Your task to perform on an android device: Go to CNN.com Image 0: 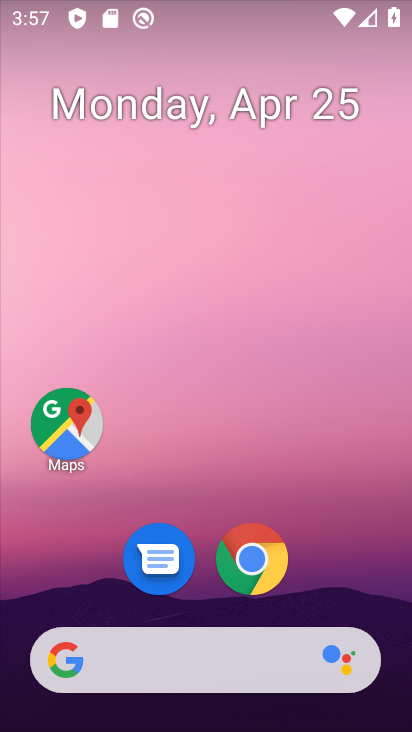
Step 0: click (254, 559)
Your task to perform on an android device: Go to CNN.com Image 1: 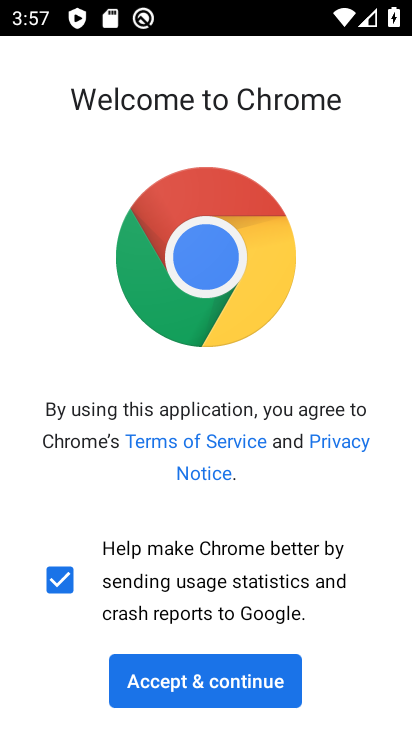
Step 1: click (227, 673)
Your task to perform on an android device: Go to CNN.com Image 2: 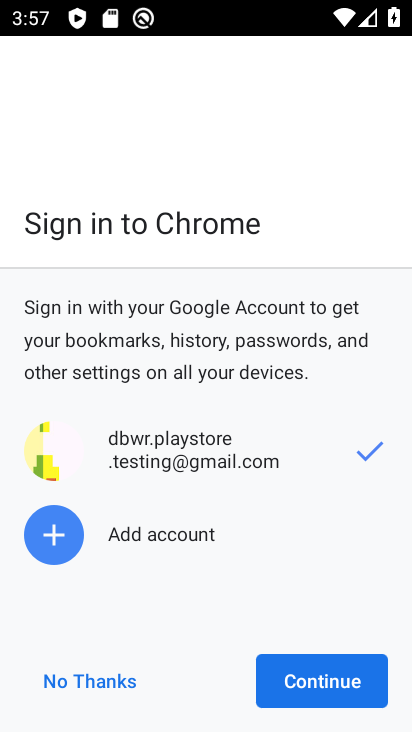
Step 2: click (315, 684)
Your task to perform on an android device: Go to CNN.com Image 3: 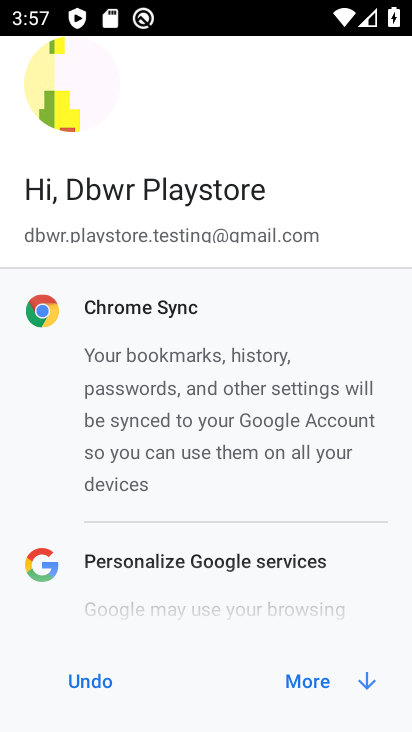
Step 3: click (315, 684)
Your task to perform on an android device: Go to CNN.com Image 4: 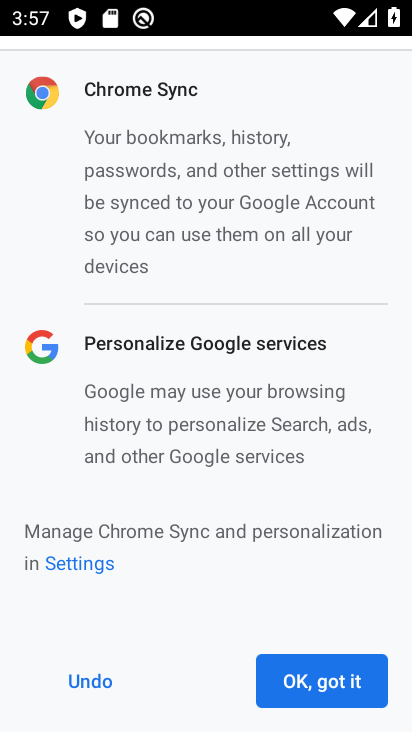
Step 4: click (315, 684)
Your task to perform on an android device: Go to CNN.com Image 5: 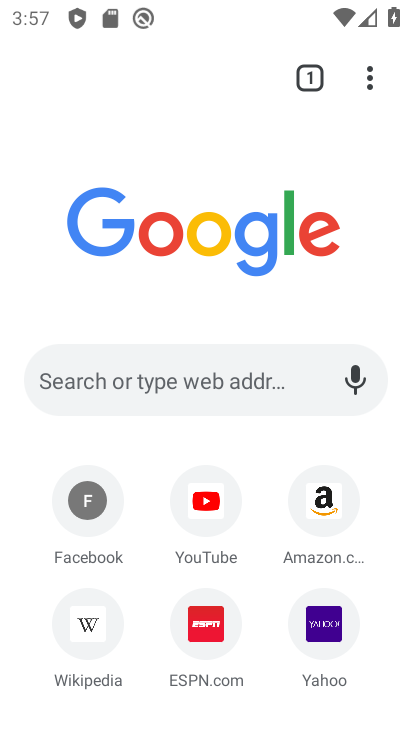
Step 5: click (206, 386)
Your task to perform on an android device: Go to CNN.com Image 6: 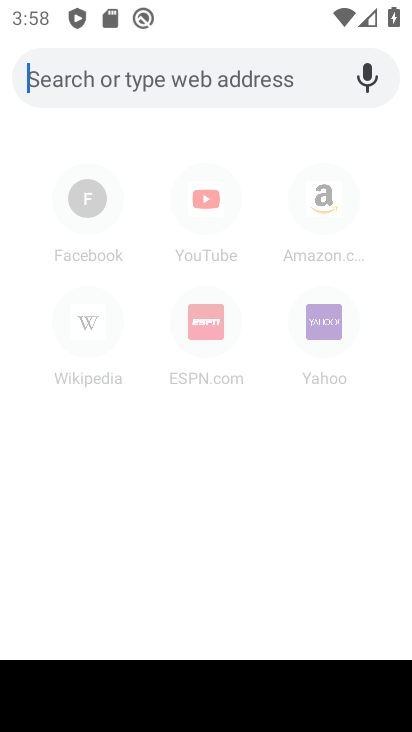
Step 6: type "CNN.com"
Your task to perform on an android device: Go to CNN.com Image 7: 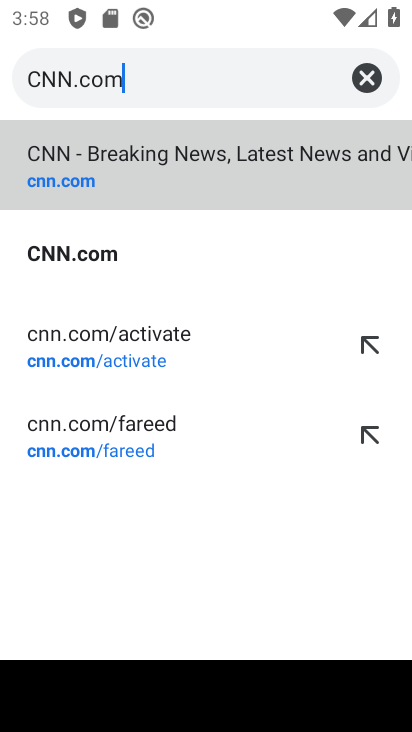
Step 7: click (77, 252)
Your task to perform on an android device: Go to CNN.com Image 8: 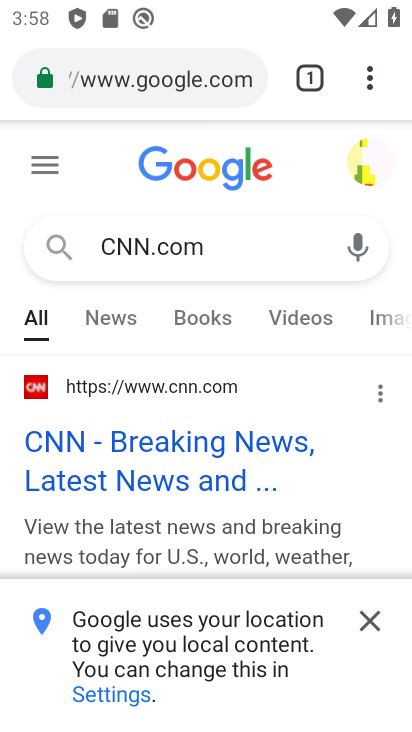
Step 8: click (209, 442)
Your task to perform on an android device: Go to CNN.com Image 9: 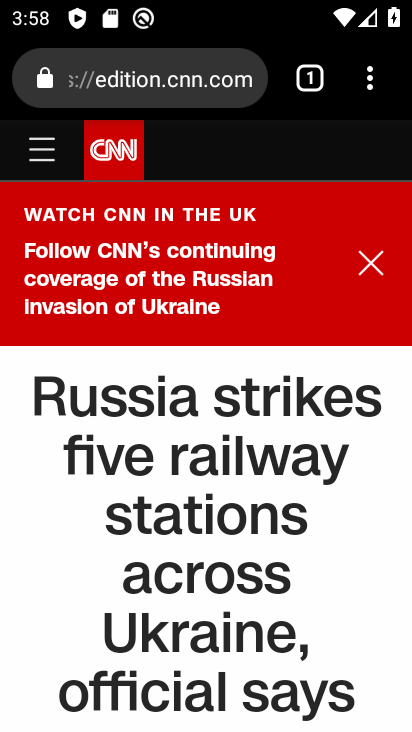
Step 9: task complete